Your task to perform on an android device: Go to CNN.com Image 0: 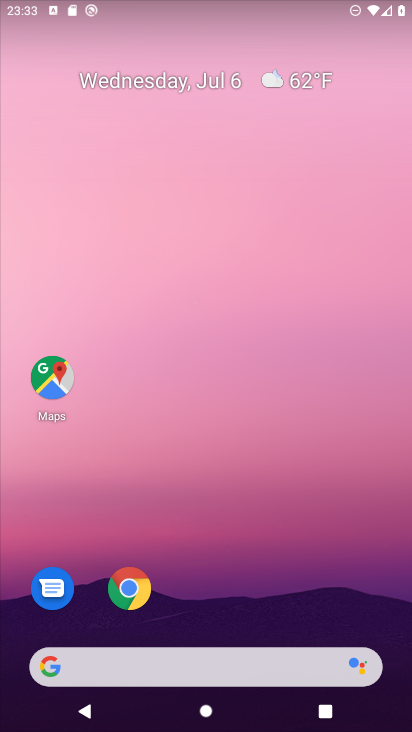
Step 0: click (124, 588)
Your task to perform on an android device: Go to CNN.com Image 1: 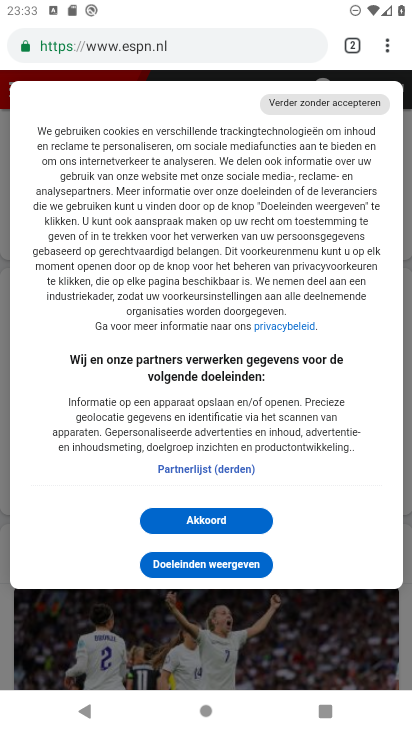
Step 1: click (199, 39)
Your task to perform on an android device: Go to CNN.com Image 2: 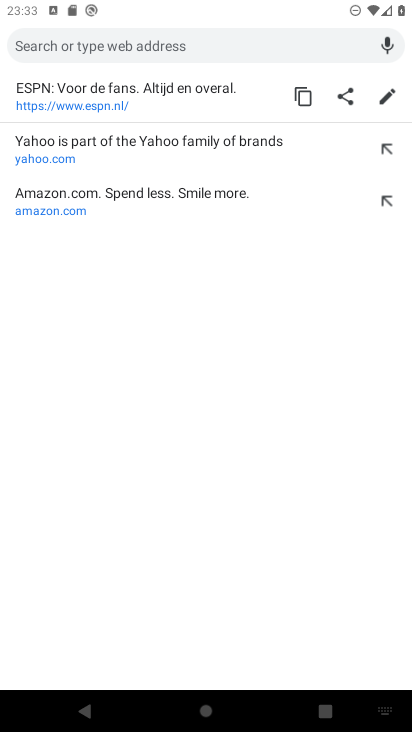
Step 2: type "CNN.com"
Your task to perform on an android device: Go to CNN.com Image 3: 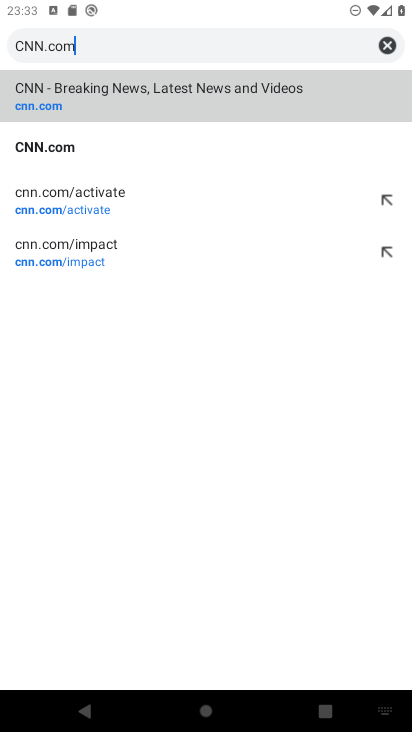
Step 3: click (53, 92)
Your task to perform on an android device: Go to CNN.com Image 4: 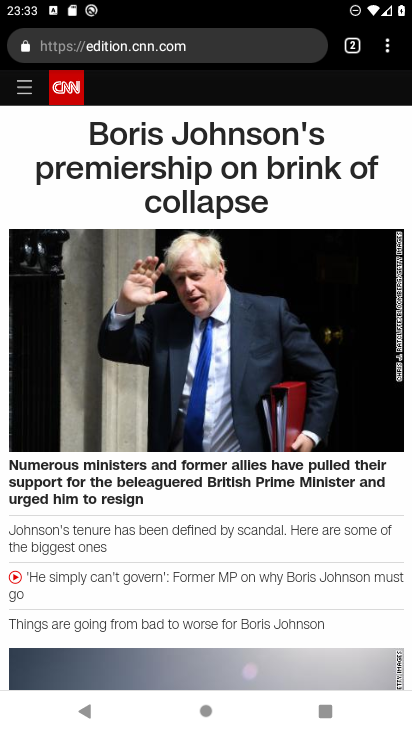
Step 4: task complete